Your task to perform on an android device: set the timer Image 0: 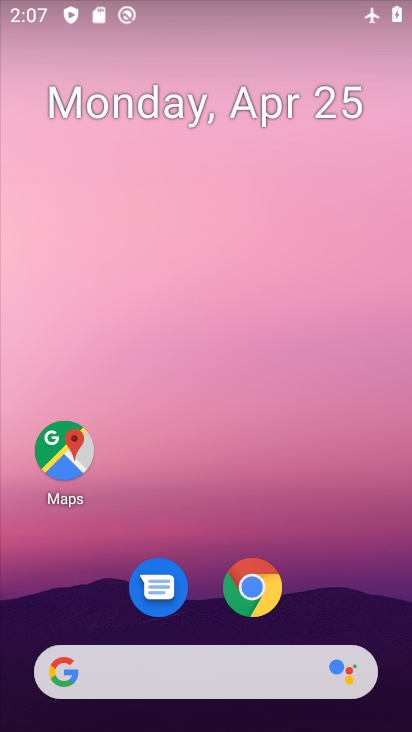
Step 0: drag from (348, 446) to (302, 91)
Your task to perform on an android device: set the timer Image 1: 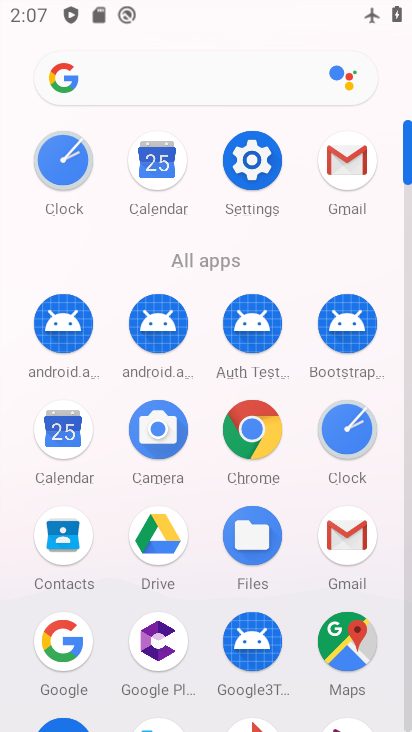
Step 1: click (341, 428)
Your task to perform on an android device: set the timer Image 2: 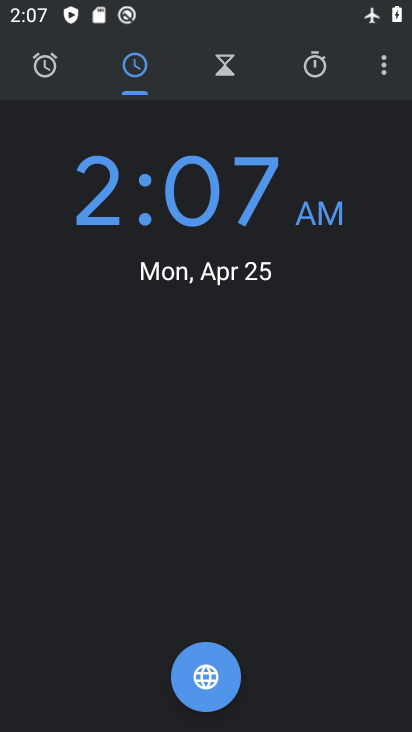
Step 2: click (227, 71)
Your task to perform on an android device: set the timer Image 3: 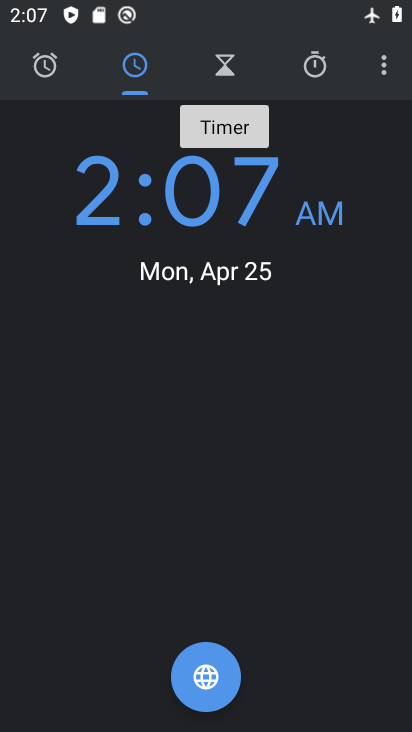
Step 3: click (228, 70)
Your task to perform on an android device: set the timer Image 4: 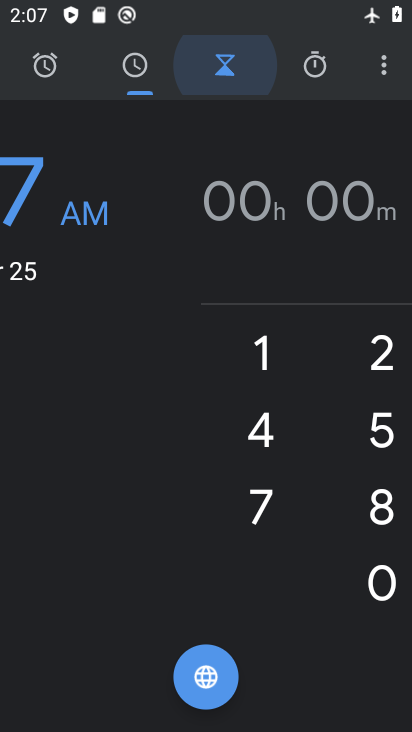
Step 4: click (228, 70)
Your task to perform on an android device: set the timer Image 5: 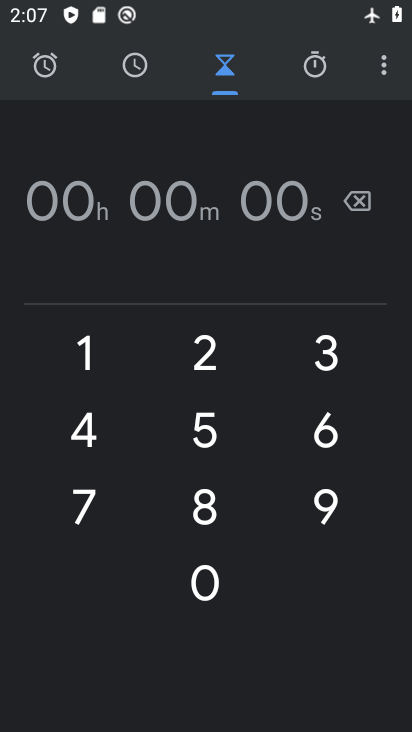
Step 5: click (226, 412)
Your task to perform on an android device: set the timer Image 6: 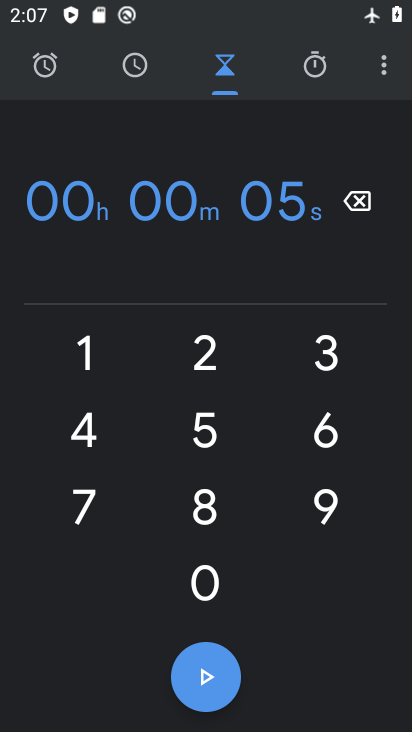
Step 6: task complete